Your task to perform on an android device: Search for vegetarian restaurants on Maps Image 0: 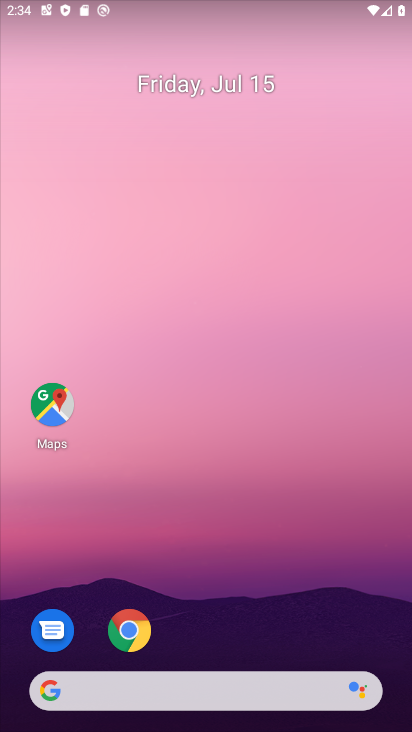
Step 0: click (59, 403)
Your task to perform on an android device: Search for vegetarian restaurants on Maps Image 1: 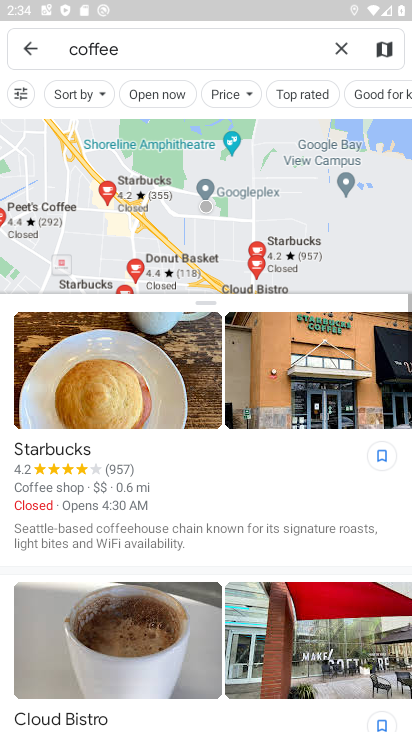
Step 1: click (336, 39)
Your task to perform on an android device: Search for vegetarian restaurants on Maps Image 2: 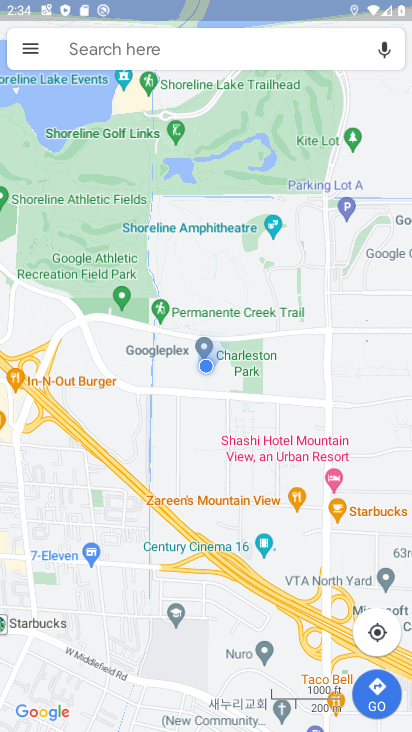
Step 2: click (153, 51)
Your task to perform on an android device: Search for vegetarian restaurants on Maps Image 3: 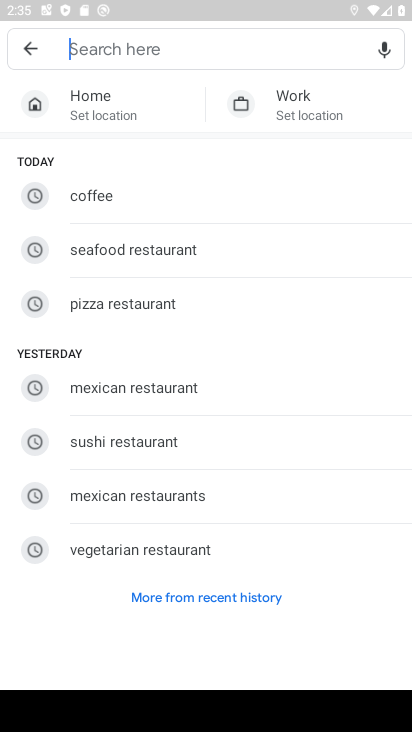
Step 3: type "vegetarian restaurants"
Your task to perform on an android device: Search for vegetarian restaurants on Maps Image 4: 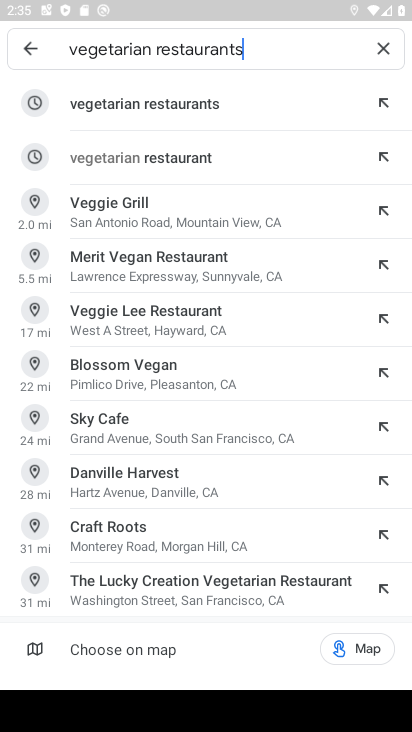
Step 4: click (129, 104)
Your task to perform on an android device: Search for vegetarian restaurants on Maps Image 5: 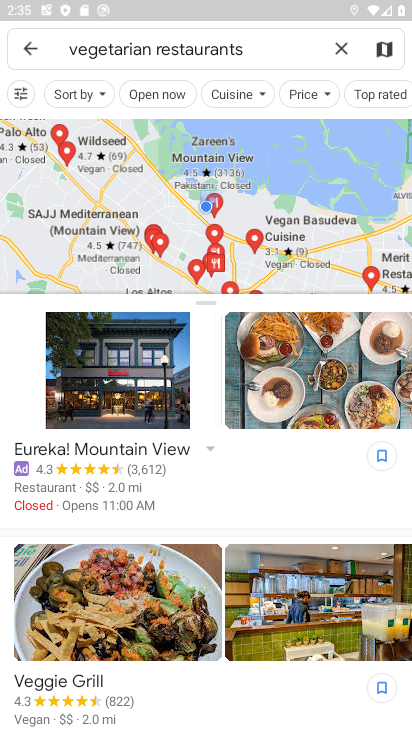
Step 5: task complete